Your task to perform on an android device: What's on my calendar today? Image 0: 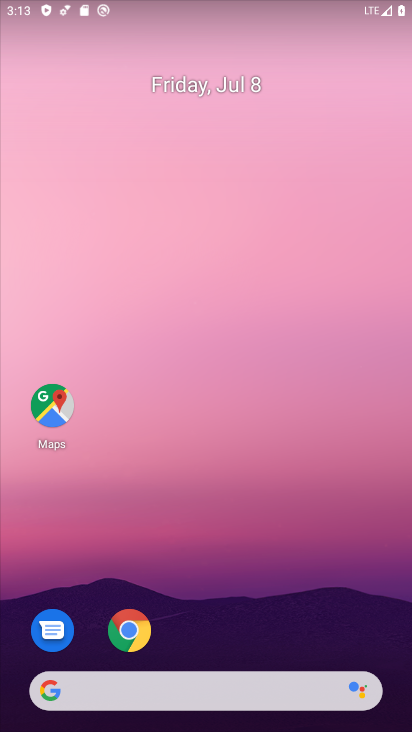
Step 0: press home button
Your task to perform on an android device: What's on my calendar today? Image 1: 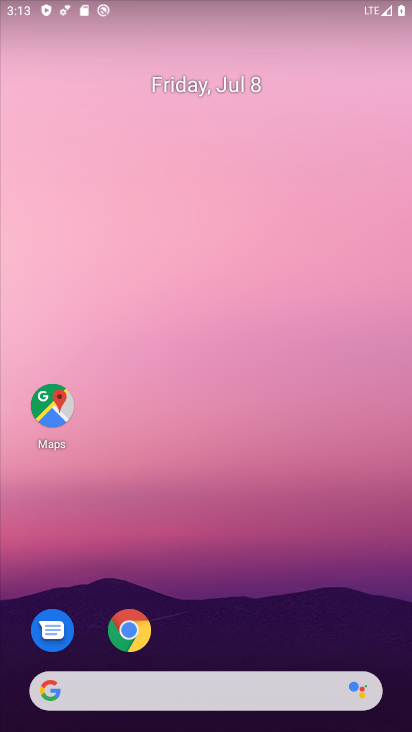
Step 1: drag from (236, 594) to (270, 279)
Your task to perform on an android device: What's on my calendar today? Image 2: 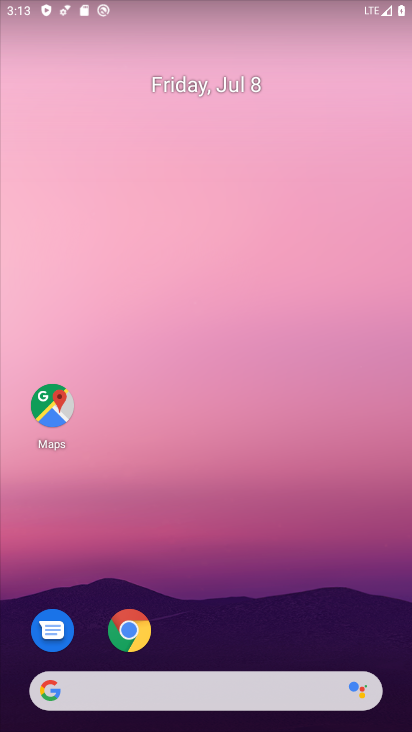
Step 2: drag from (277, 405) to (260, 82)
Your task to perform on an android device: What's on my calendar today? Image 3: 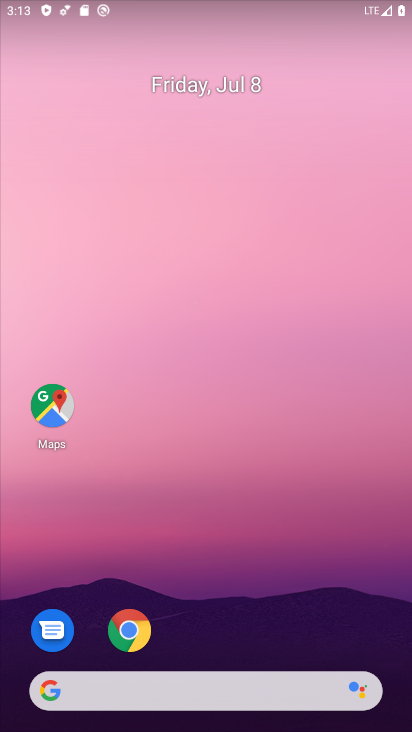
Step 3: drag from (289, 287) to (272, 8)
Your task to perform on an android device: What's on my calendar today? Image 4: 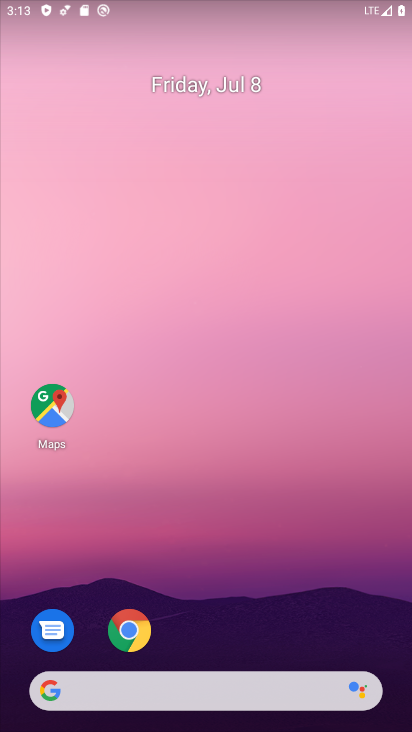
Step 4: drag from (268, 470) to (280, 73)
Your task to perform on an android device: What's on my calendar today? Image 5: 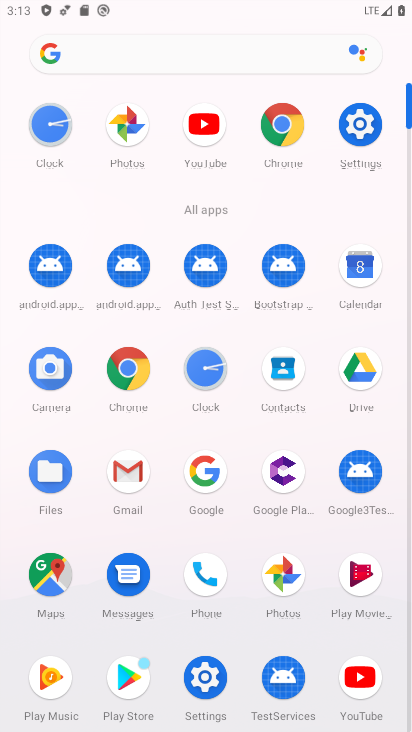
Step 5: click (356, 261)
Your task to perform on an android device: What's on my calendar today? Image 6: 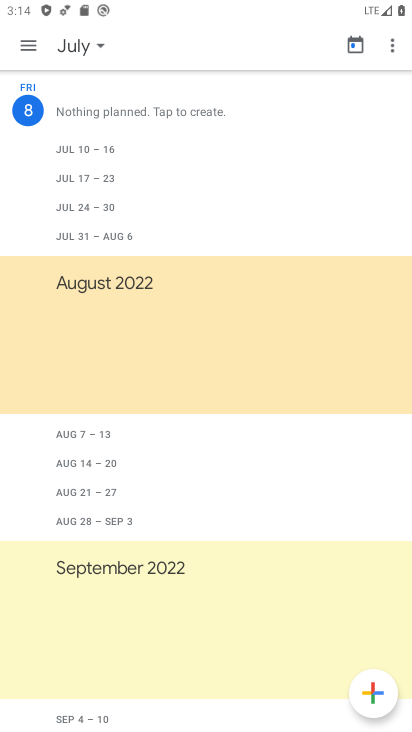
Step 6: task complete